Your task to perform on an android device: all mails in gmail Image 0: 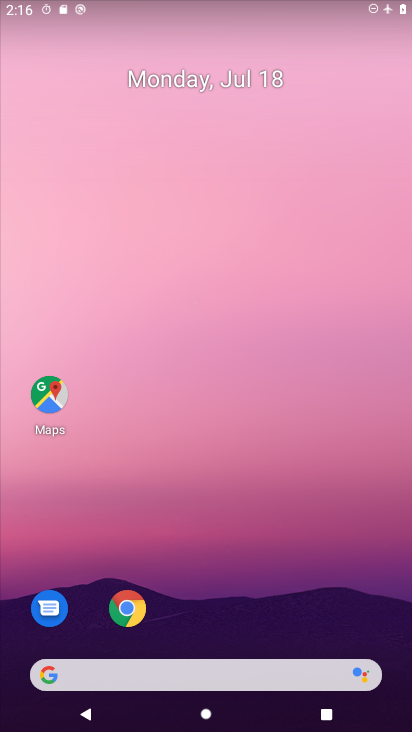
Step 0: drag from (247, 711) to (230, 80)
Your task to perform on an android device: all mails in gmail Image 1: 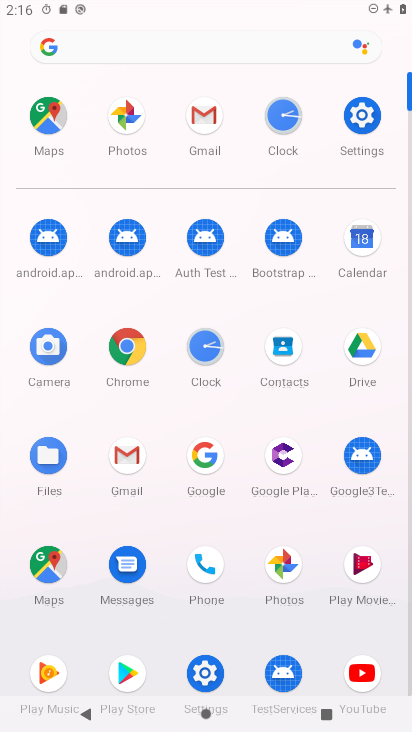
Step 1: click (205, 119)
Your task to perform on an android device: all mails in gmail Image 2: 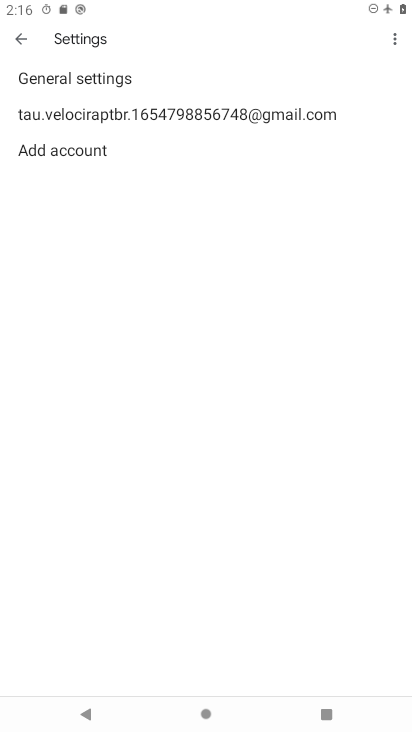
Step 2: click (19, 31)
Your task to perform on an android device: all mails in gmail Image 3: 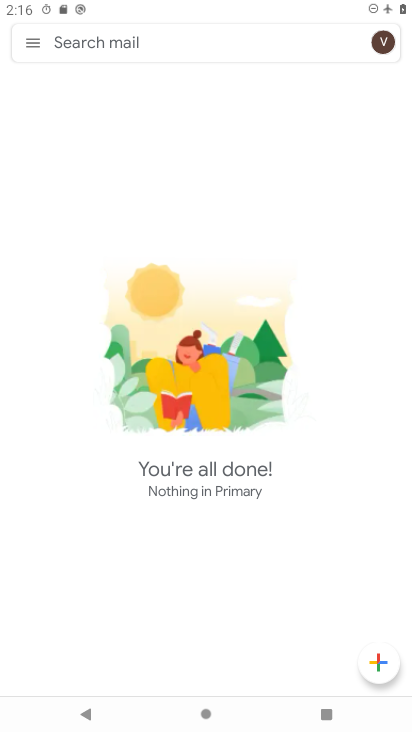
Step 3: click (31, 47)
Your task to perform on an android device: all mails in gmail Image 4: 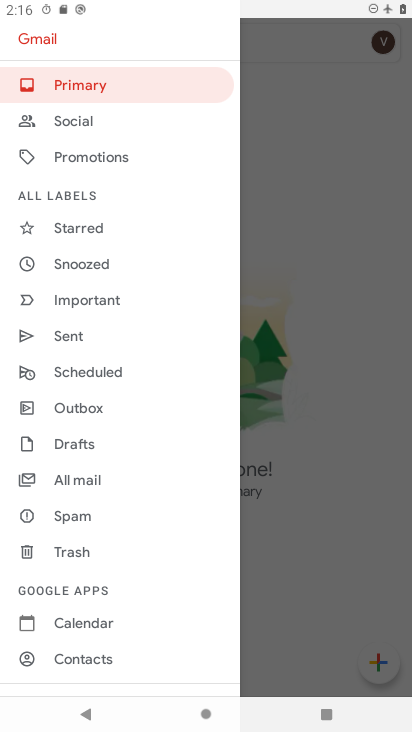
Step 4: click (71, 476)
Your task to perform on an android device: all mails in gmail Image 5: 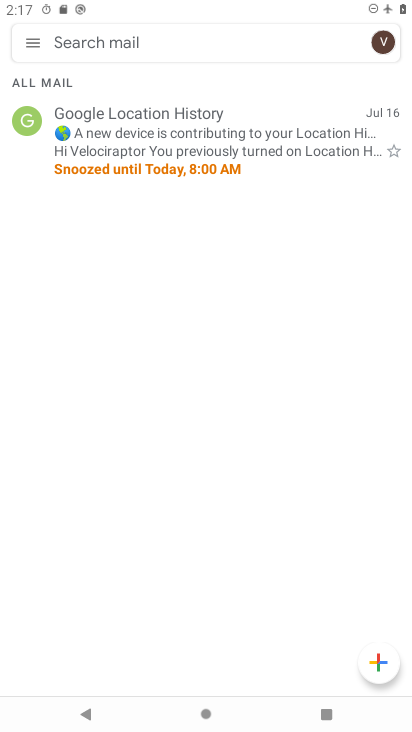
Step 5: task complete